Your task to perform on an android device: open app "Firefox Browser" (install if not already installed) Image 0: 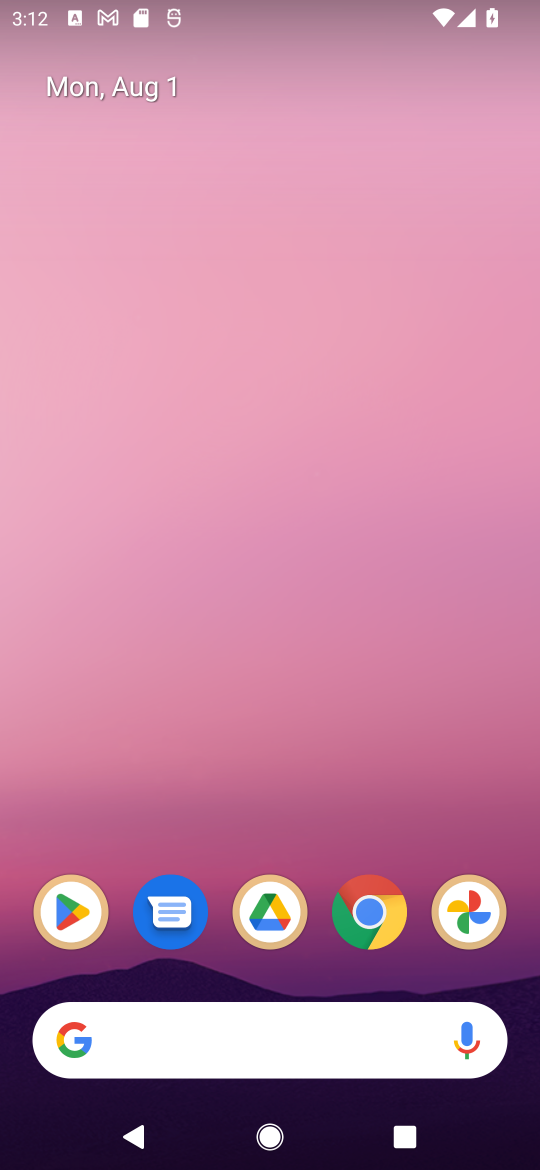
Step 0: click (68, 923)
Your task to perform on an android device: open app "Firefox Browser" (install if not already installed) Image 1: 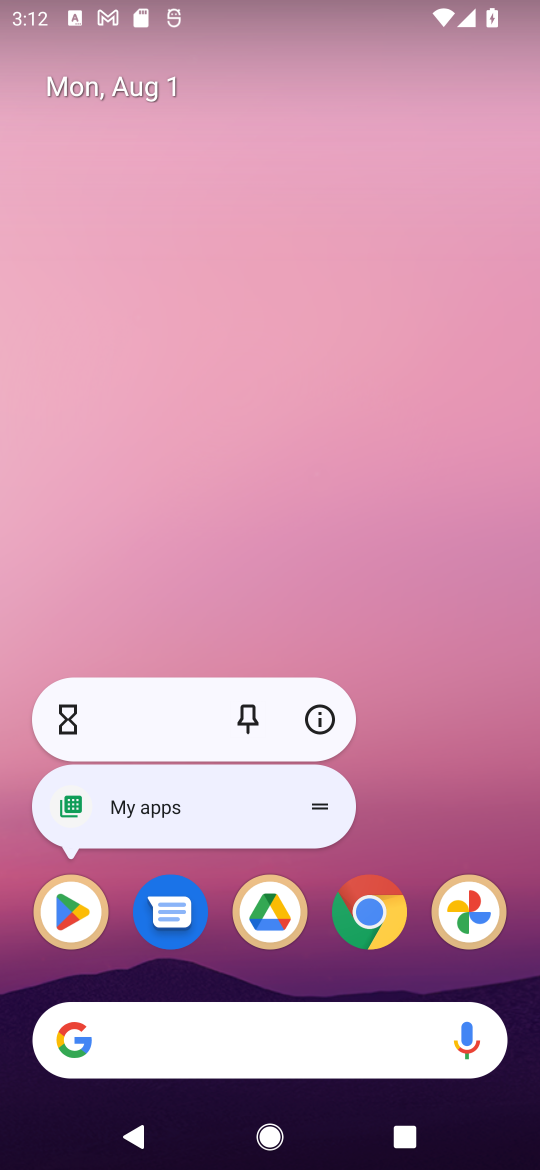
Step 1: click (68, 923)
Your task to perform on an android device: open app "Firefox Browser" (install if not already installed) Image 2: 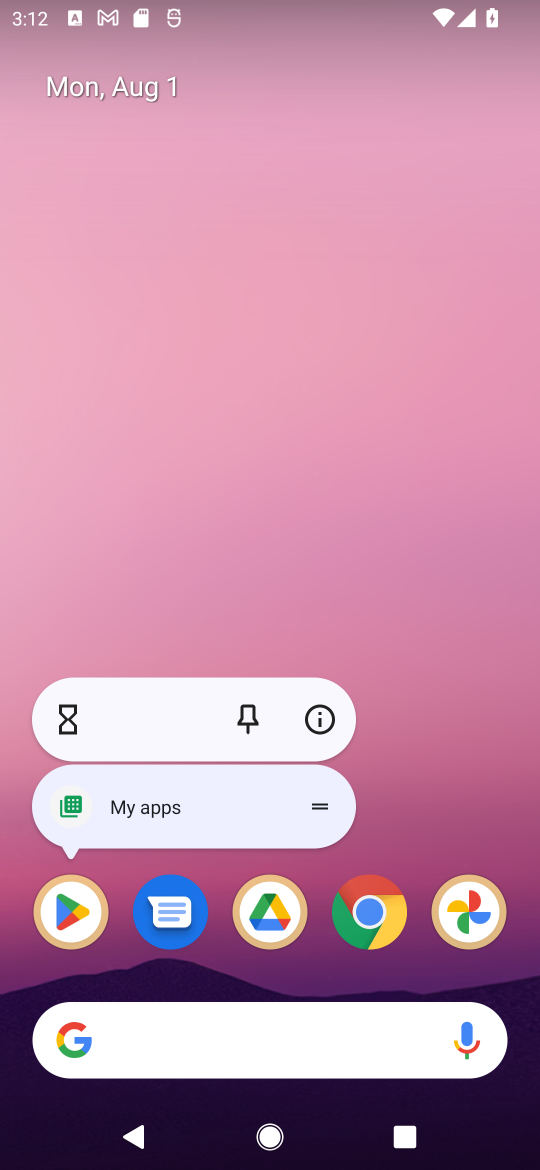
Step 2: click (68, 923)
Your task to perform on an android device: open app "Firefox Browser" (install if not already installed) Image 3: 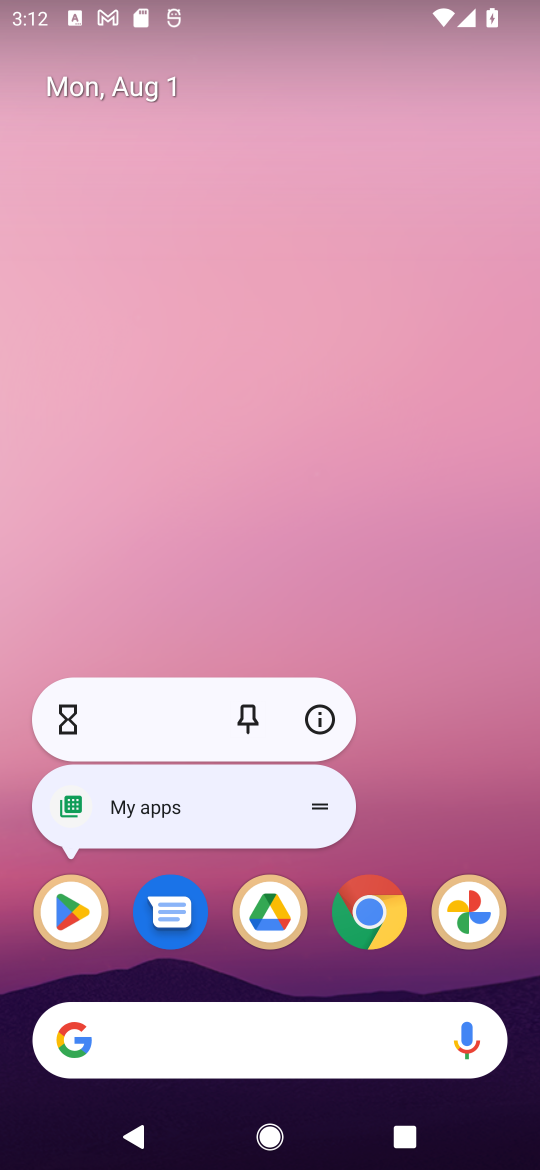
Step 3: click (70, 917)
Your task to perform on an android device: open app "Firefox Browser" (install if not already installed) Image 4: 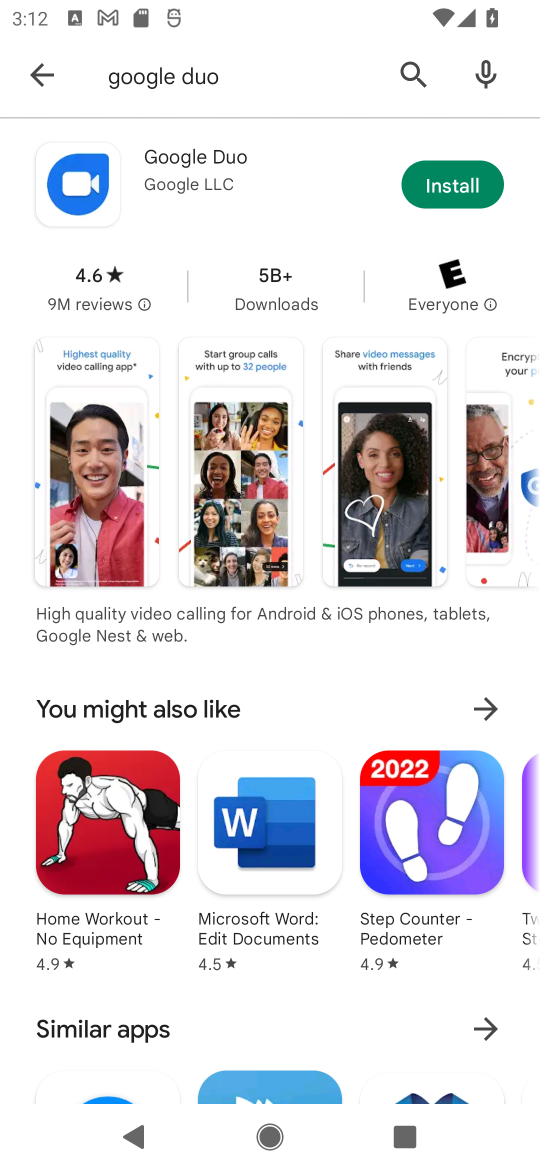
Step 4: click (408, 74)
Your task to perform on an android device: open app "Firefox Browser" (install if not already installed) Image 5: 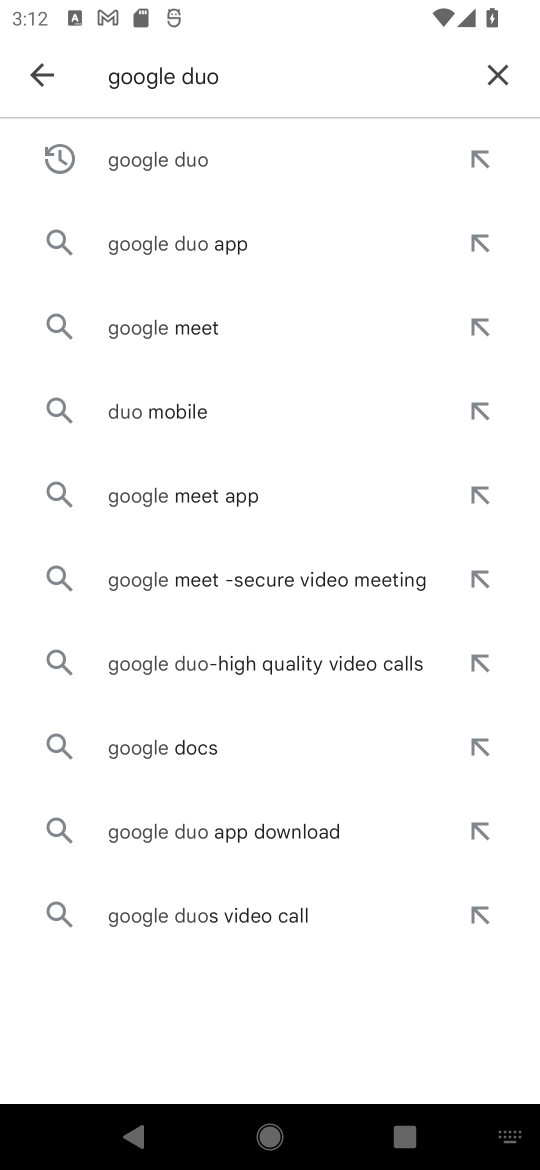
Step 5: click (485, 74)
Your task to perform on an android device: open app "Firefox Browser" (install if not already installed) Image 6: 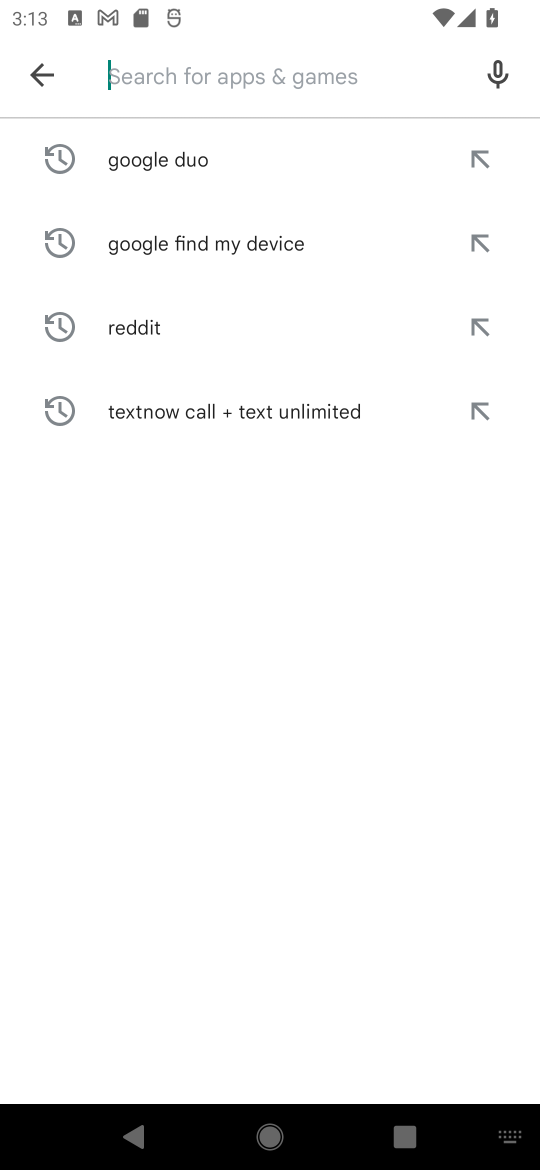
Step 6: type "Firefox Browser"
Your task to perform on an android device: open app "Firefox Browser" (install if not already installed) Image 7: 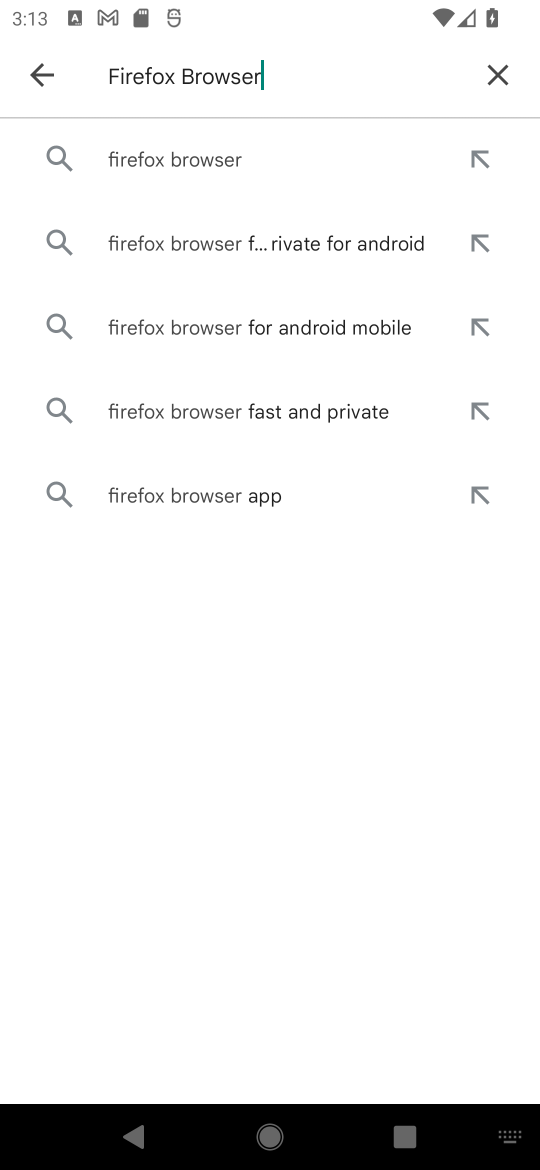
Step 7: click (157, 173)
Your task to perform on an android device: open app "Firefox Browser" (install if not already installed) Image 8: 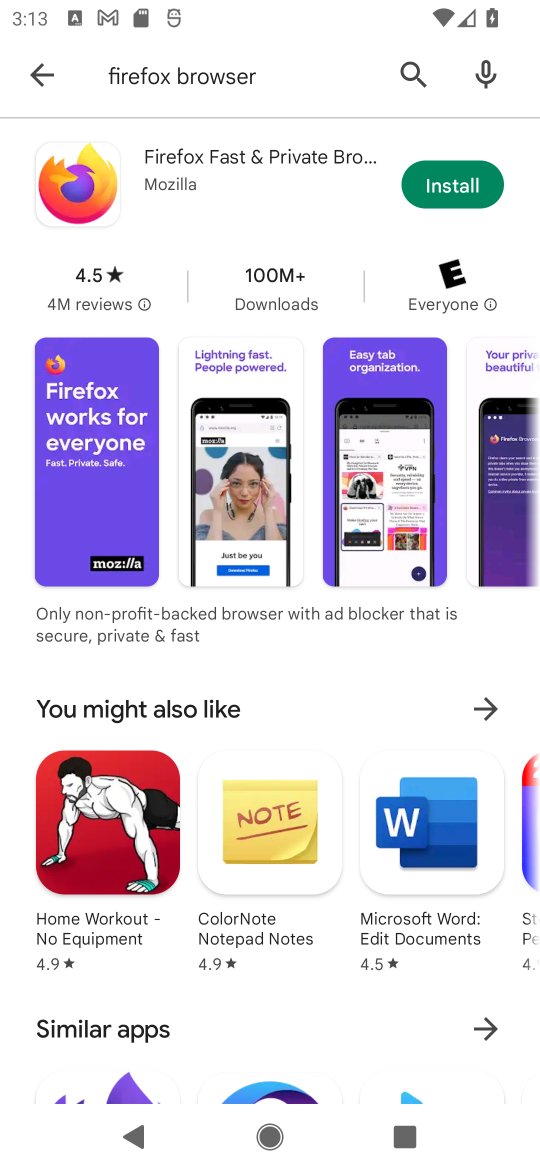
Step 8: click (468, 182)
Your task to perform on an android device: open app "Firefox Browser" (install if not already installed) Image 9: 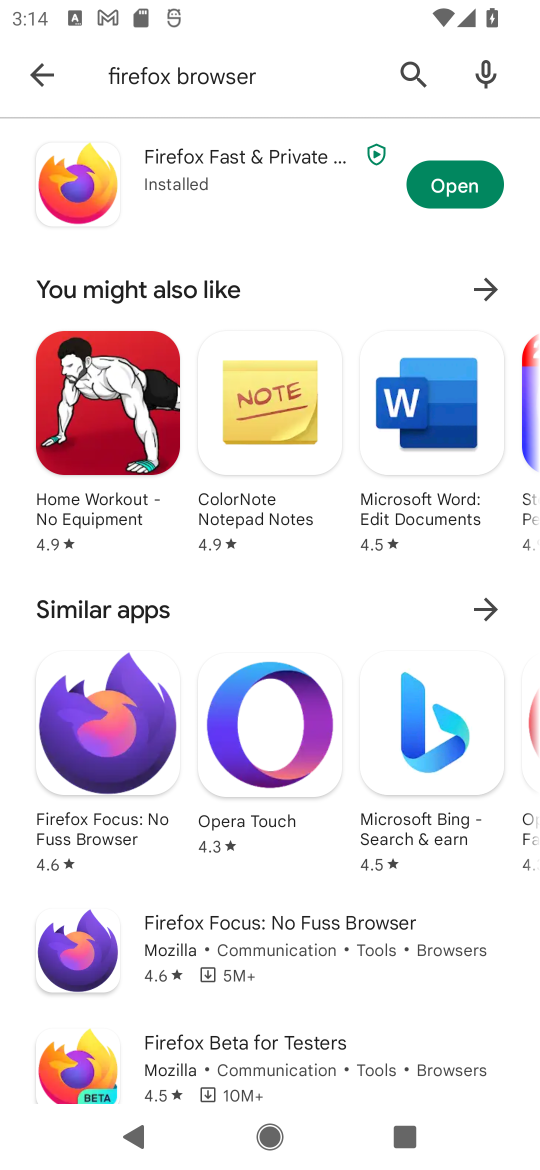
Step 9: click (448, 209)
Your task to perform on an android device: open app "Firefox Browser" (install if not already installed) Image 10: 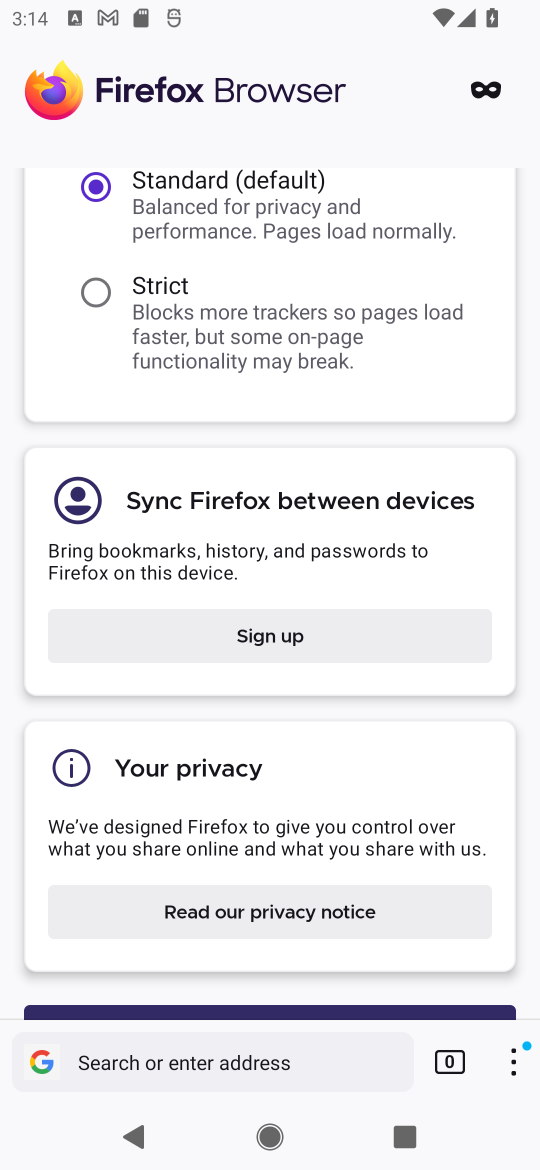
Step 10: task complete